Your task to perform on an android device: Show me recent news Image 0: 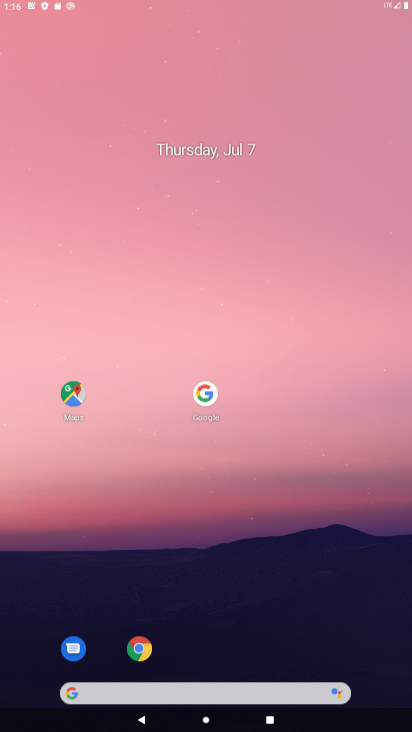
Step 0: press home button
Your task to perform on an android device: Show me recent news Image 1: 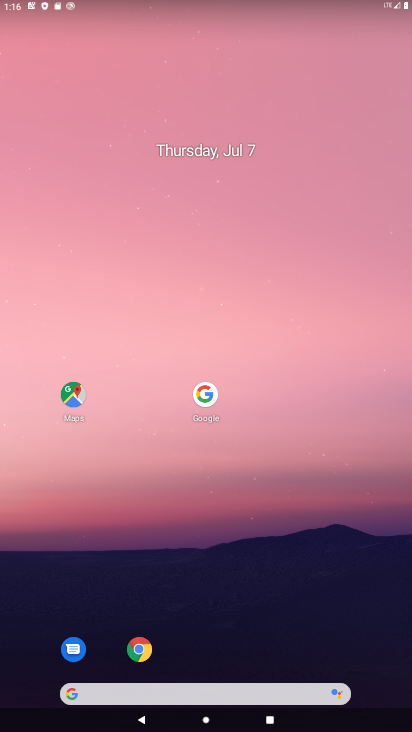
Step 1: click (131, 693)
Your task to perform on an android device: Show me recent news Image 2: 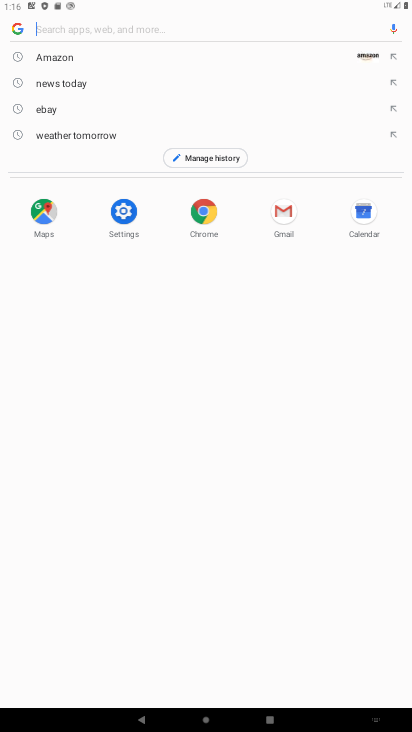
Step 2: type "recent news"
Your task to perform on an android device: Show me recent news Image 3: 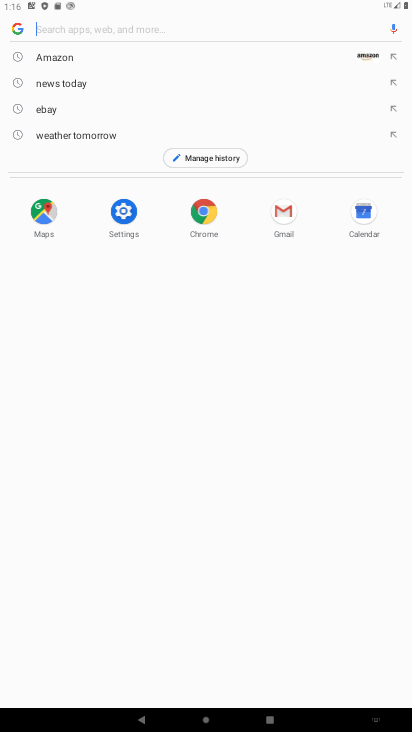
Step 3: click (83, 29)
Your task to perform on an android device: Show me recent news Image 4: 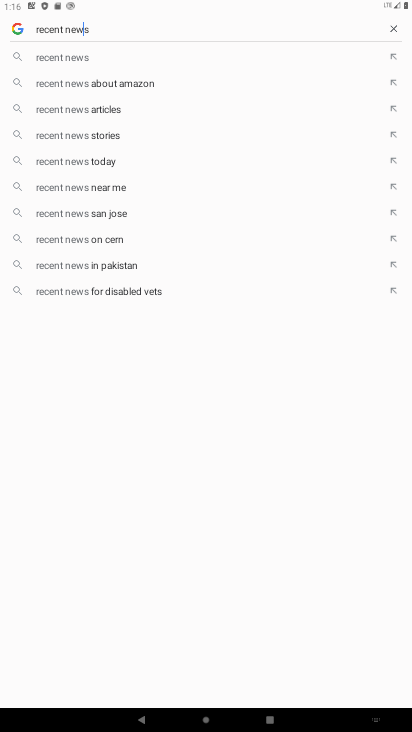
Step 4: click (71, 56)
Your task to perform on an android device: Show me recent news Image 5: 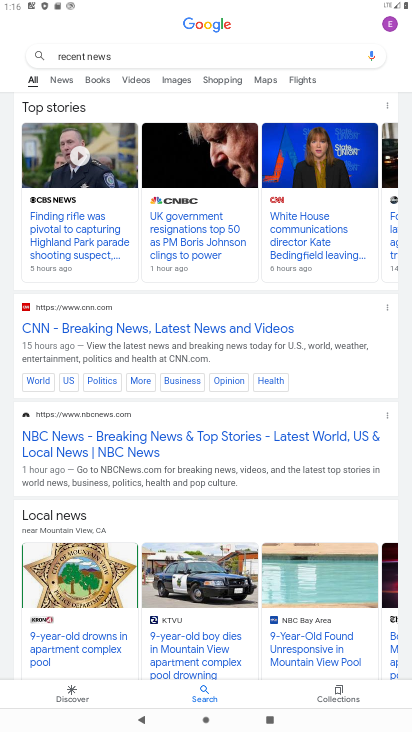
Step 5: task complete